Your task to perform on an android device: see sites visited before in the chrome app Image 0: 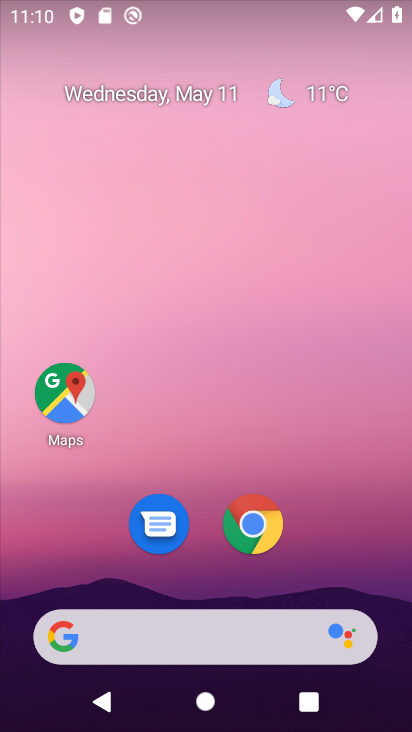
Step 0: click (257, 521)
Your task to perform on an android device: see sites visited before in the chrome app Image 1: 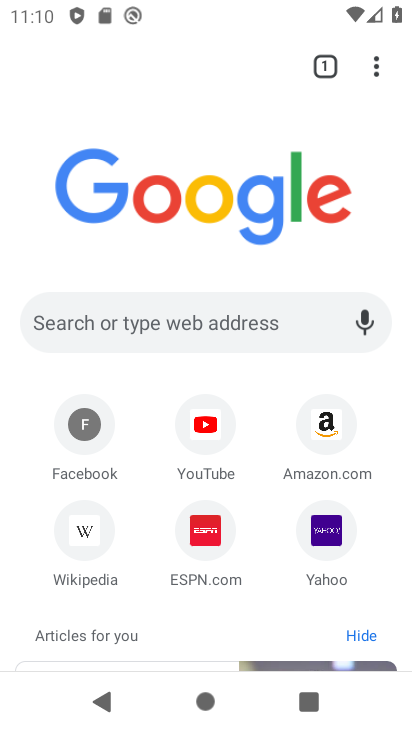
Step 1: click (371, 64)
Your task to perform on an android device: see sites visited before in the chrome app Image 2: 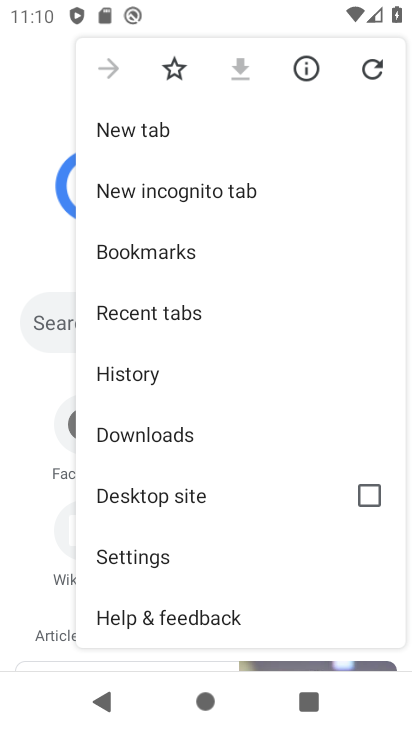
Step 2: click (174, 308)
Your task to perform on an android device: see sites visited before in the chrome app Image 3: 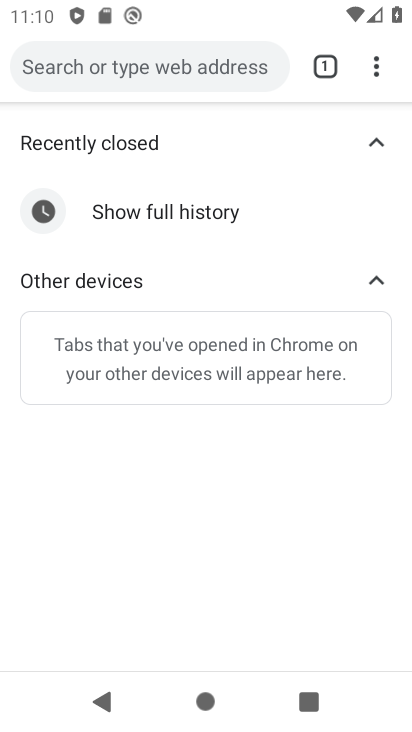
Step 3: task complete